Your task to perform on an android device: open wifi settings Image 0: 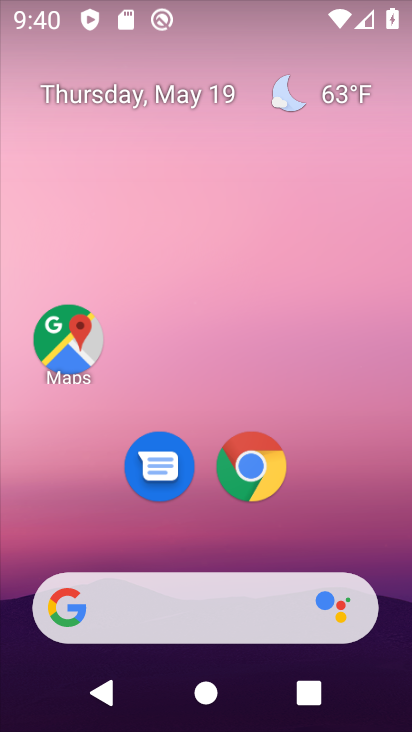
Step 0: drag from (401, 630) to (294, 71)
Your task to perform on an android device: open wifi settings Image 1: 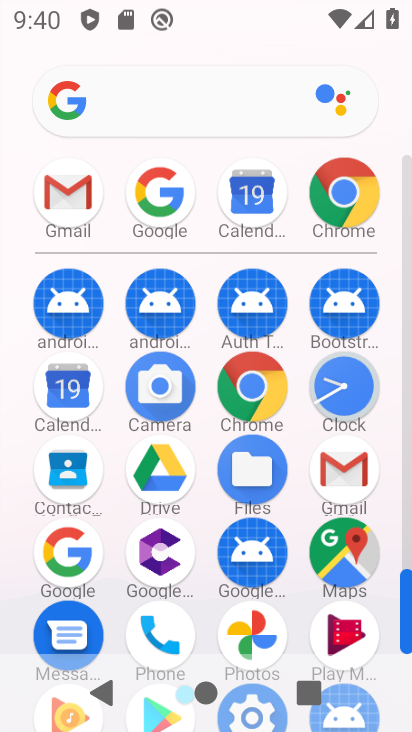
Step 1: drag from (290, 644) to (293, 178)
Your task to perform on an android device: open wifi settings Image 2: 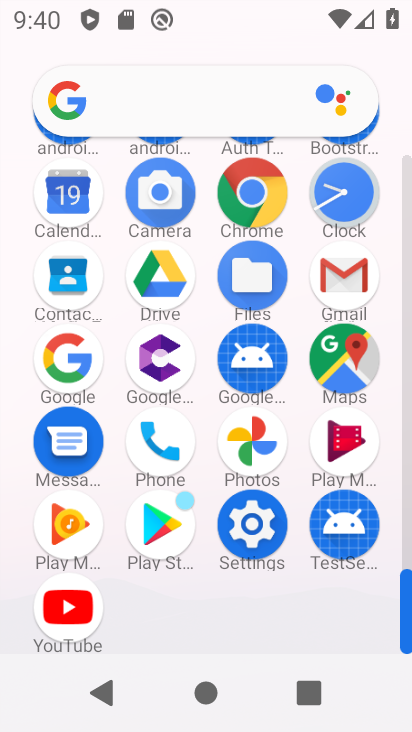
Step 2: click (259, 552)
Your task to perform on an android device: open wifi settings Image 3: 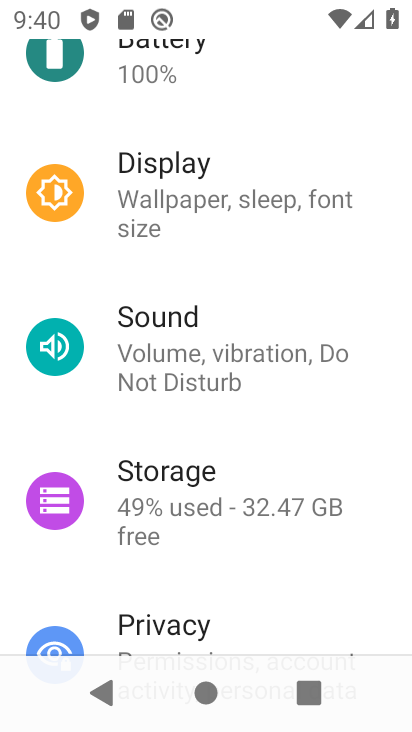
Step 3: drag from (127, 152) to (134, 560)
Your task to perform on an android device: open wifi settings Image 4: 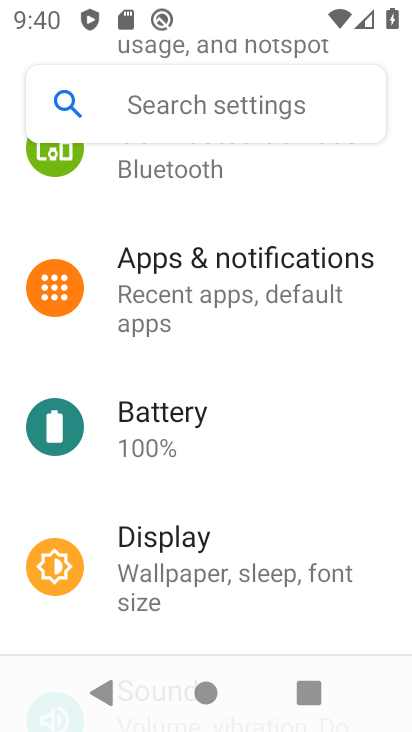
Step 4: drag from (204, 191) to (199, 623)
Your task to perform on an android device: open wifi settings Image 5: 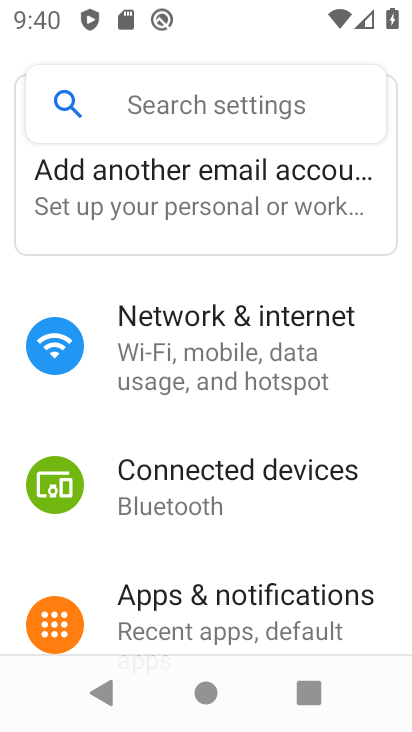
Step 5: click (205, 366)
Your task to perform on an android device: open wifi settings Image 6: 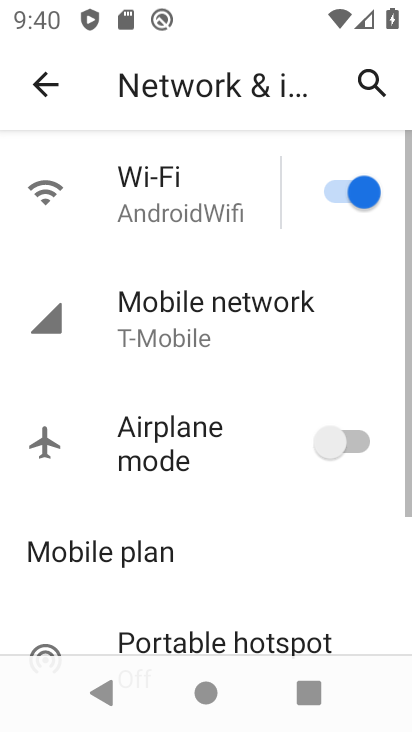
Step 6: click (154, 203)
Your task to perform on an android device: open wifi settings Image 7: 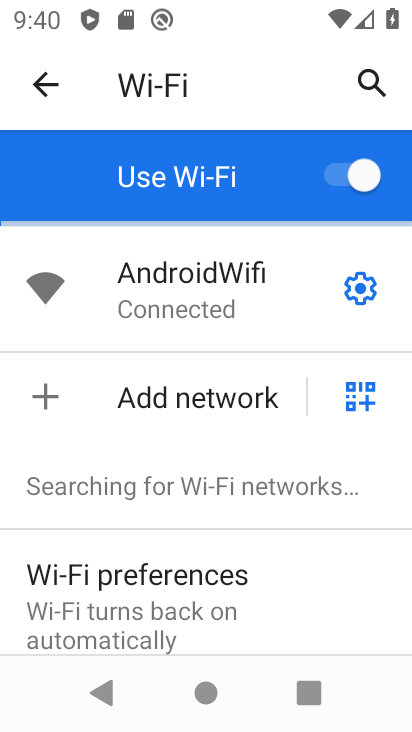
Step 7: task complete